Your task to perform on an android device: Go to wifi settings Image 0: 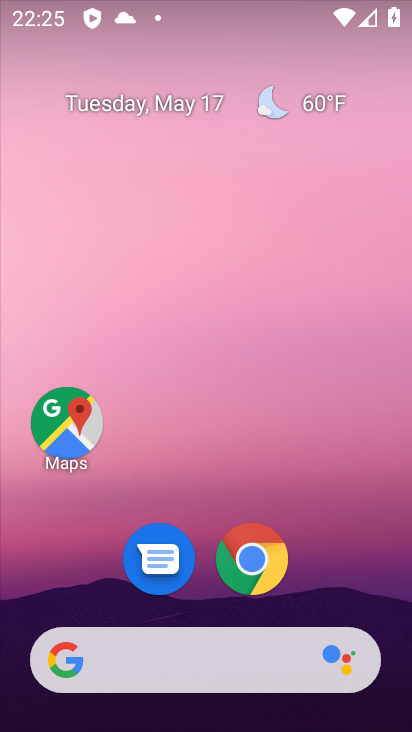
Step 0: drag from (343, 535) to (244, 76)
Your task to perform on an android device: Go to wifi settings Image 1: 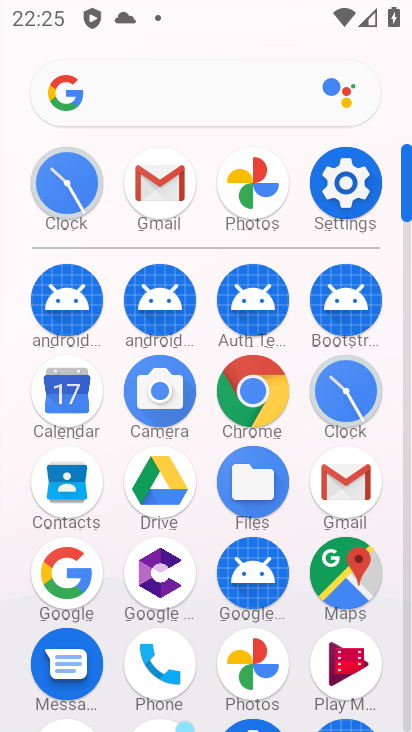
Step 1: click (354, 196)
Your task to perform on an android device: Go to wifi settings Image 2: 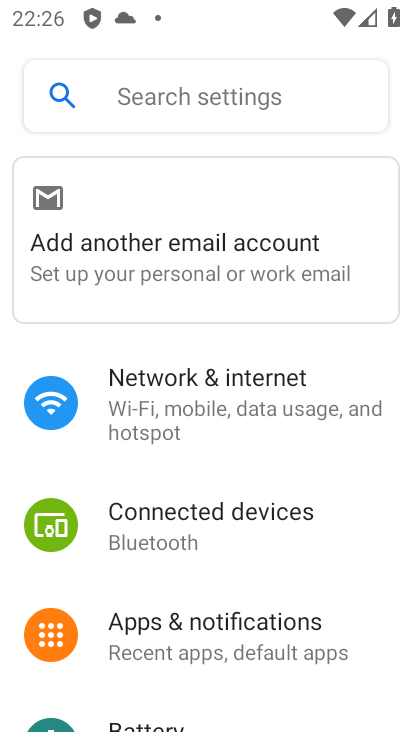
Step 2: click (174, 402)
Your task to perform on an android device: Go to wifi settings Image 3: 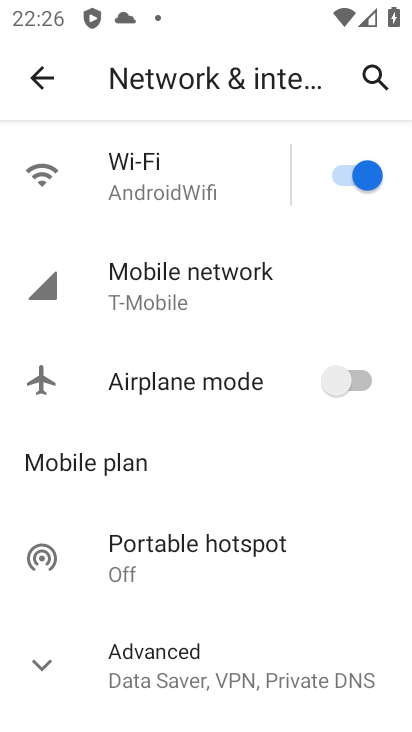
Step 3: click (151, 186)
Your task to perform on an android device: Go to wifi settings Image 4: 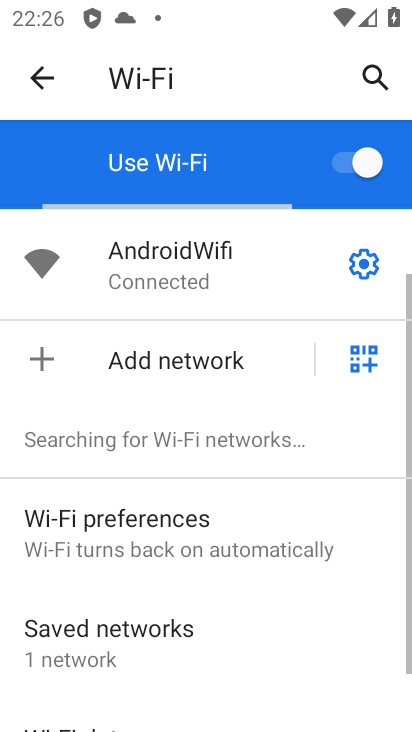
Step 4: click (362, 262)
Your task to perform on an android device: Go to wifi settings Image 5: 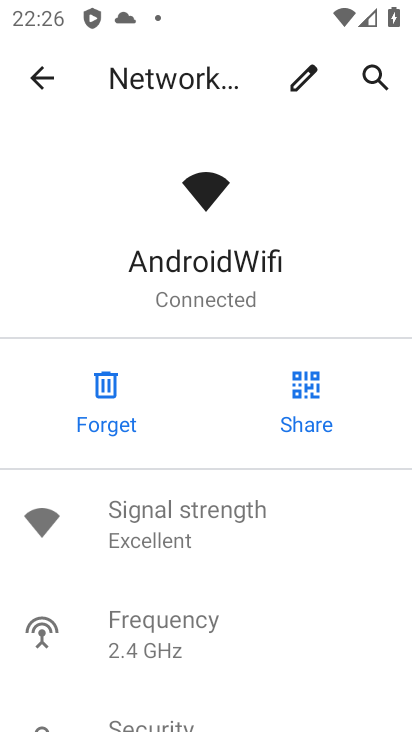
Step 5: task complete